Your task to perform on an android device: check google app version Image 0: 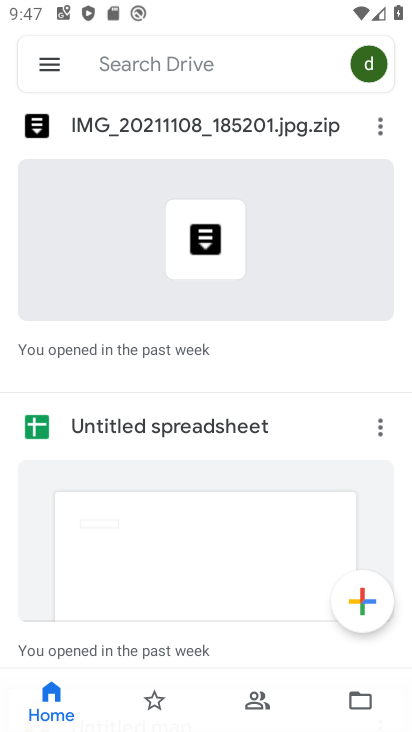
Step 0: press back button
Your task to perform on an android device: check google app version Image 1: 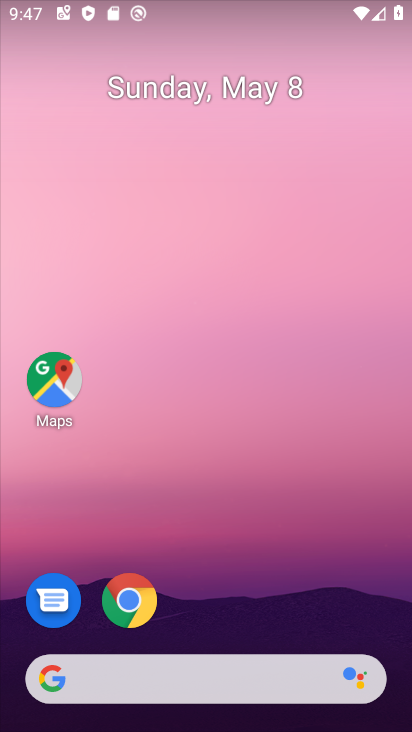
Step 1: drag from (219, 657) to (181, 173)
Your task to perform on an android device: check google app version Image 2: 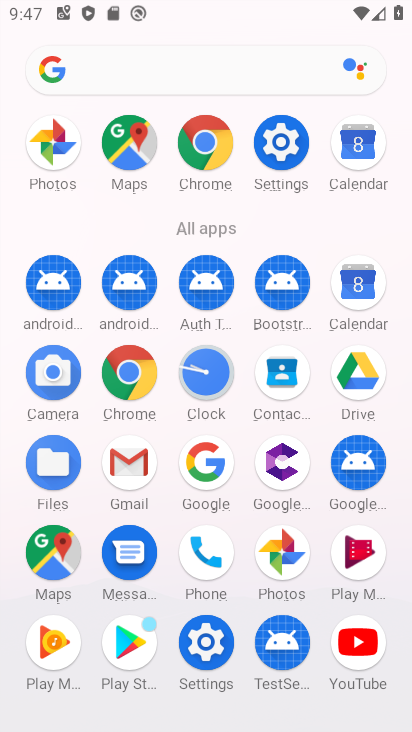
Step 2: click (199, 477)
Your task to perform on an android device: check google app version Image 3: 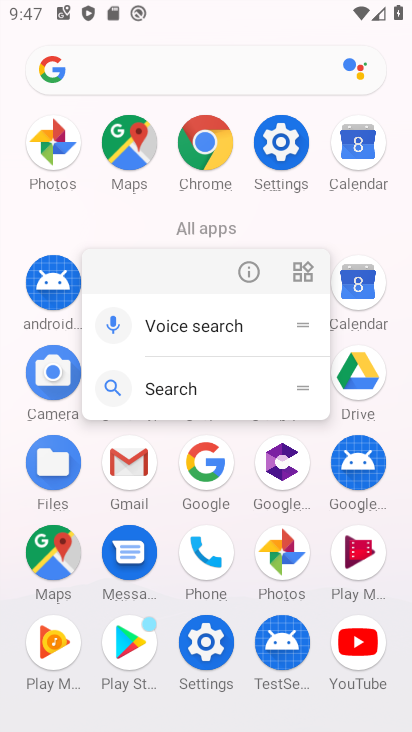
Step 3: click (246, 277)
Your task to perform on an android device: check google app version Image 4: 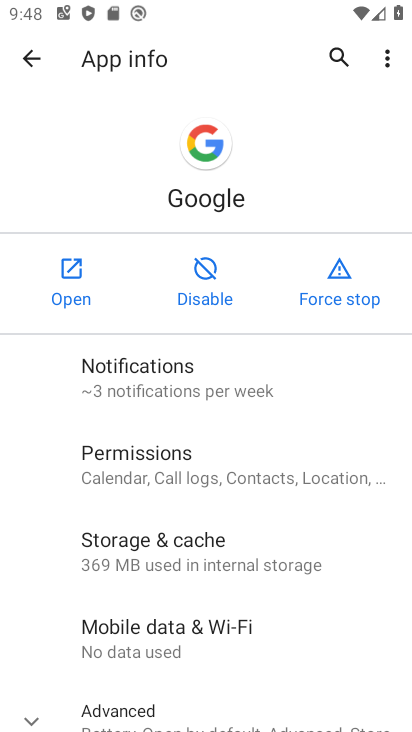
Step 4: drag from (275, 580) to (158, 48)
Your task to perform on an android device: check google app version Image 5: 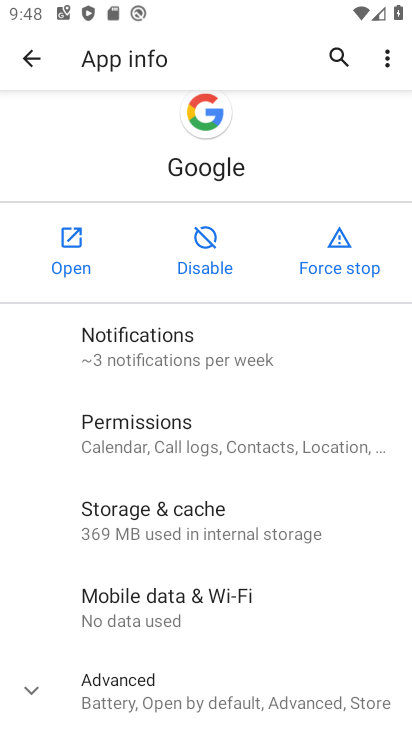
Step 5: drag from (207, 628) to (181, 25)
Your task to perform on an android device: check google app version Image 6: 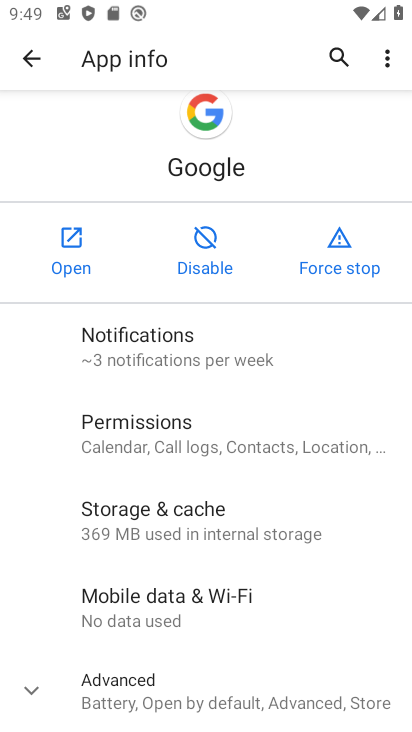
Step 6: click (212, 694)
Your task to perform on an android device: check google app version Image 7: 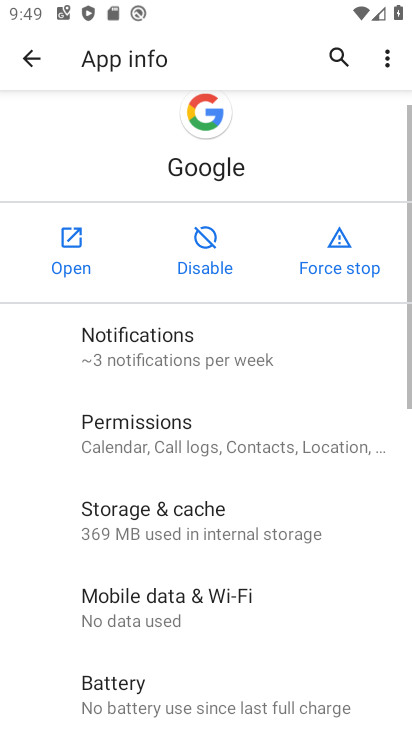
Step 7: task complete